Your task to perform on an android device: change notifications settings Image 0: 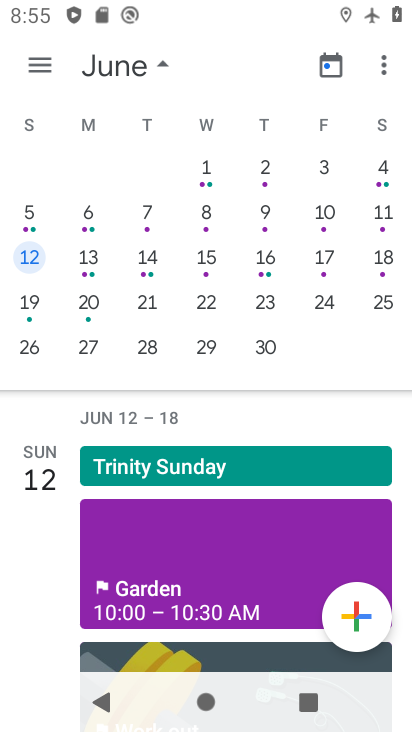
Step 0: press home button
Your task to perform on an android device: change notifications settings Image 1: 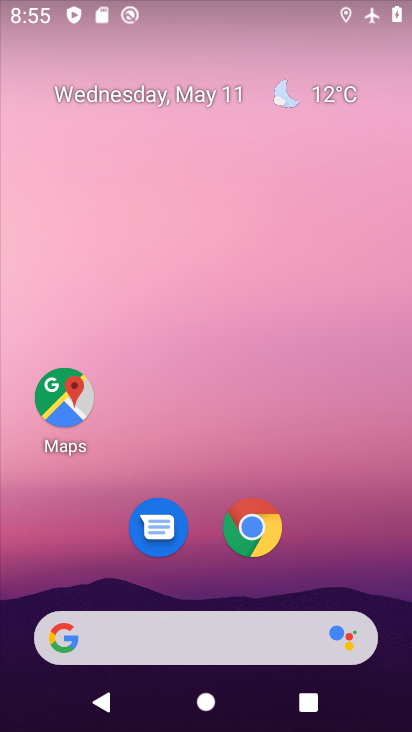
Step 1: drag from (324, 541) to (258, 56)
Your task to perform on an android device: change notifications settings Image 2: 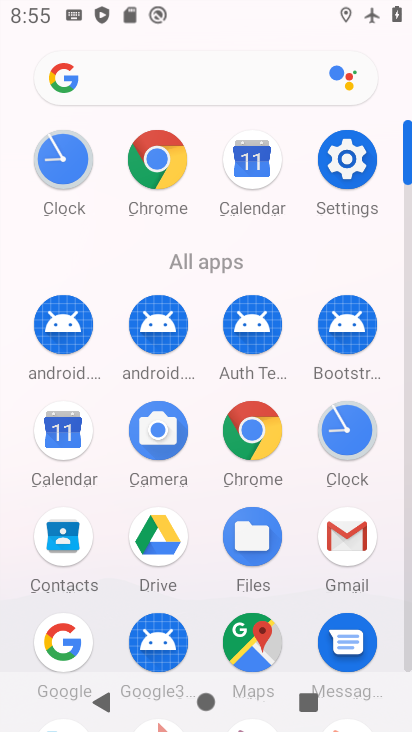
Step 2: click (362, 183)
Your task to perform on an android device: change notifications settings Image 3: 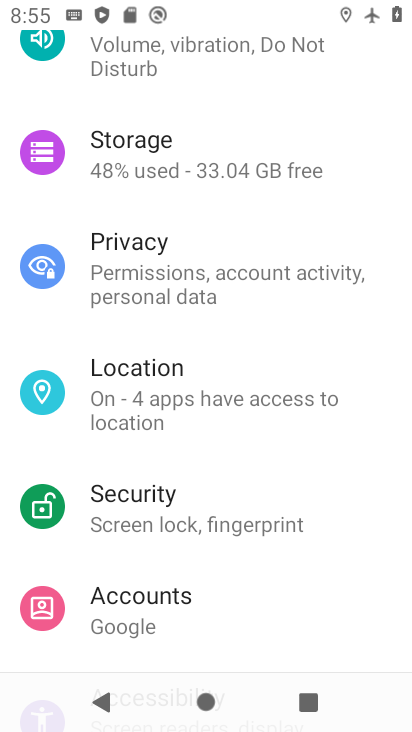
Step 3: drag from (234, 135) to (221, 612)
Your task to perform on an android device: change notifications settings Image 4: 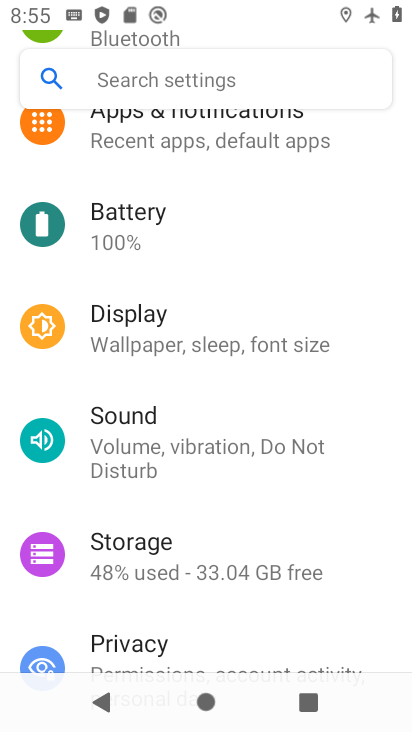
Step 4: drag from (227, 149) to (219, 334)
Your task to perform on an android device: change notifications settings Image 5: 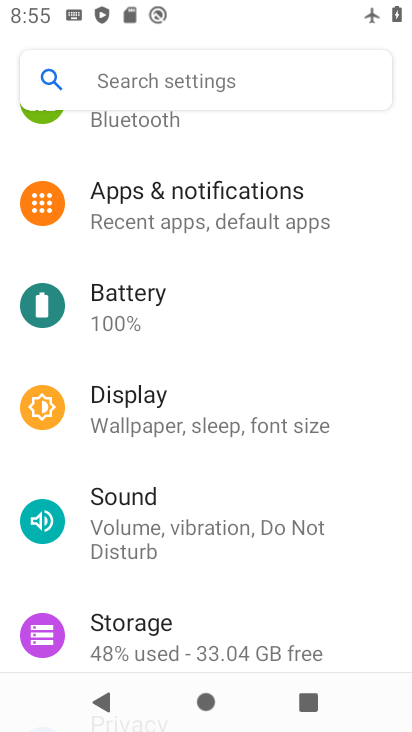
Step 5: click (225, 217)
Your task to perform on an android device: change notifications settings Image 6: 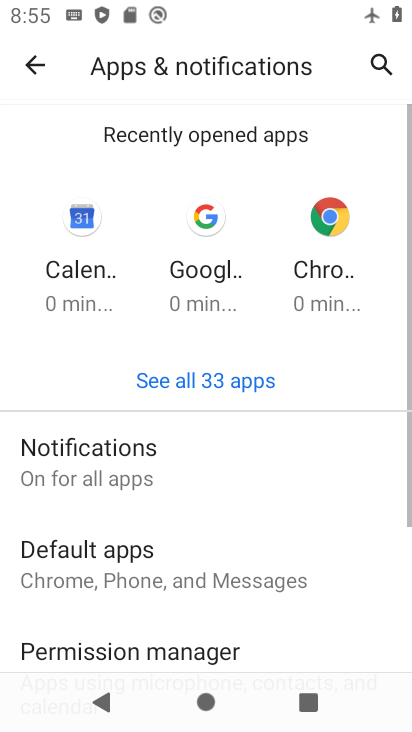
Step 6: click (100, 469)
Your task to perform on an android device: change notifications settings Image 7: 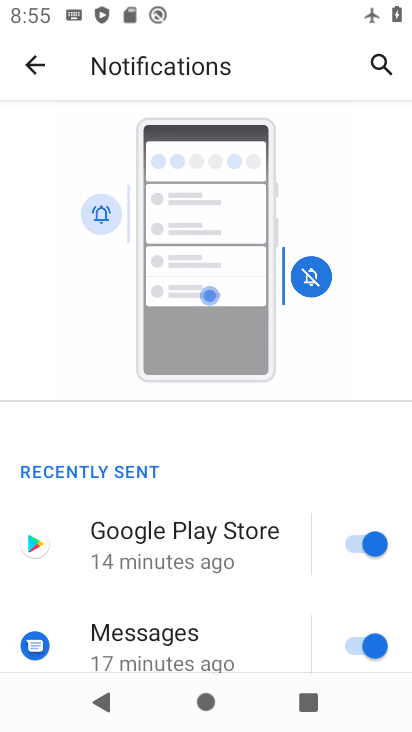
Step 7: drag from (226, 614) to (300, 87)
Your task to perform on an android device: change notifications settings Image 8: 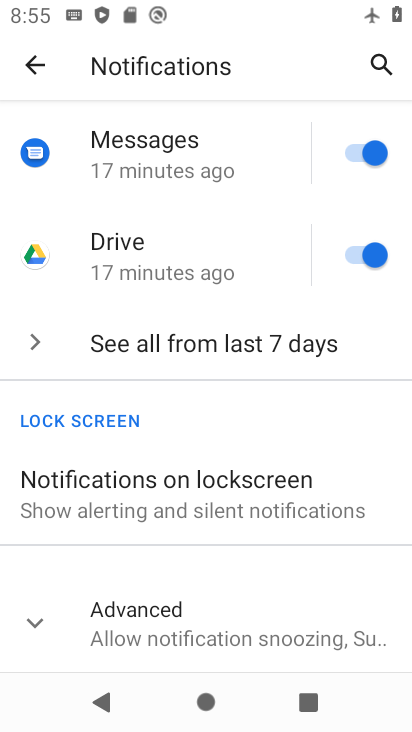
Step 8: drag from (221, 638) to (251, 379)
Your task to perform on an android device: change notifications settings Image 9: 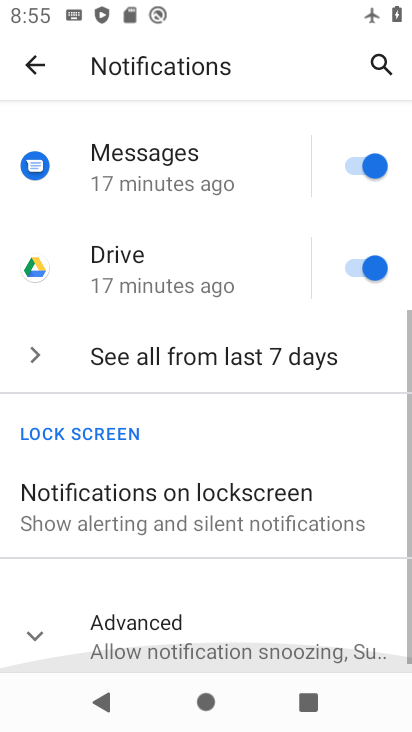
Step 9: click (191, 588)
Your task to perform on an android device: change notifications settings Image 10: 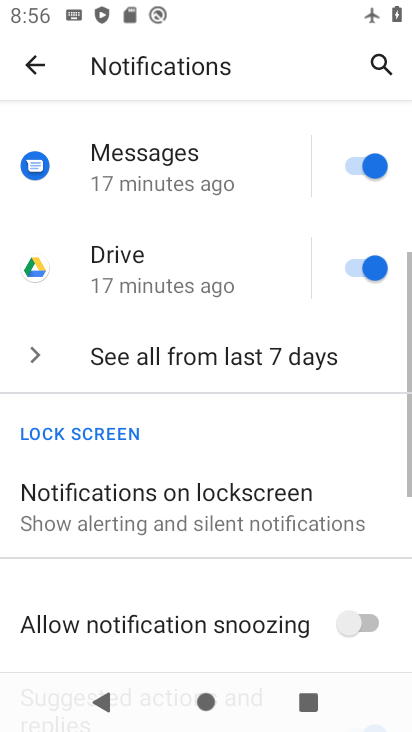
Step 10: drag from (239, 599) to (277, 205)
Your task to perform on an android device: change notifications settings Image 11: 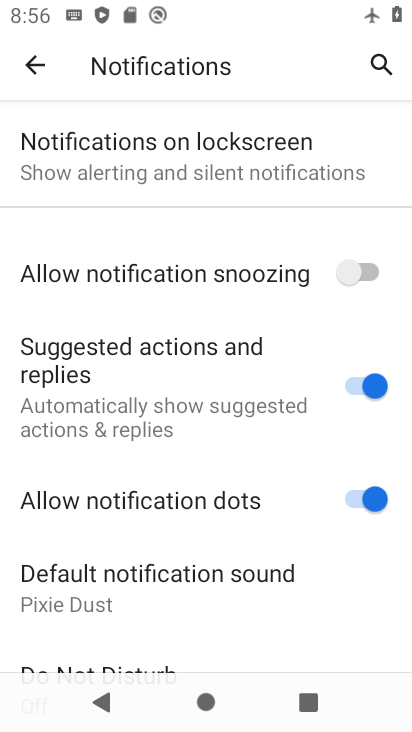
Step 11: click (347, 246)
Your task to perform on an android device: change notifications settings Image 12: 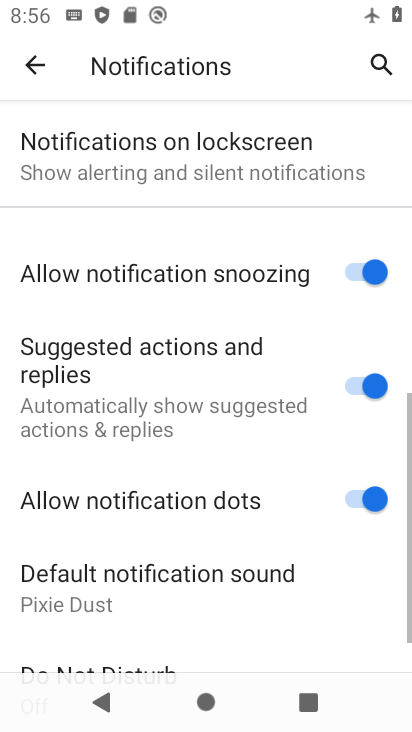
Step 12: task complete